Your task to perform on an android device: Open eBay Image 0: 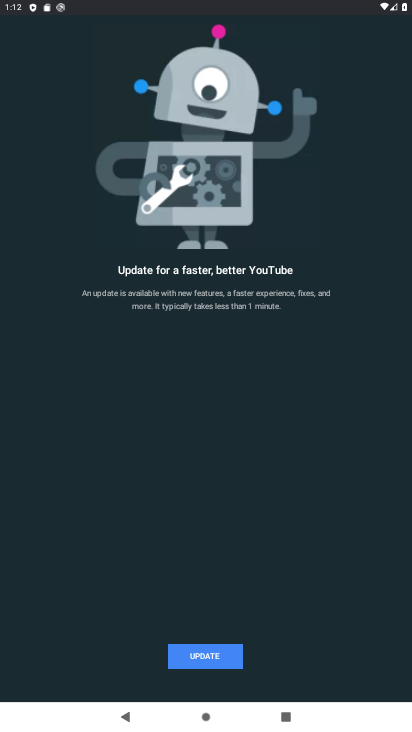
Step 0: press home button
Your task to perform on an android device: Open eBay Image 1: 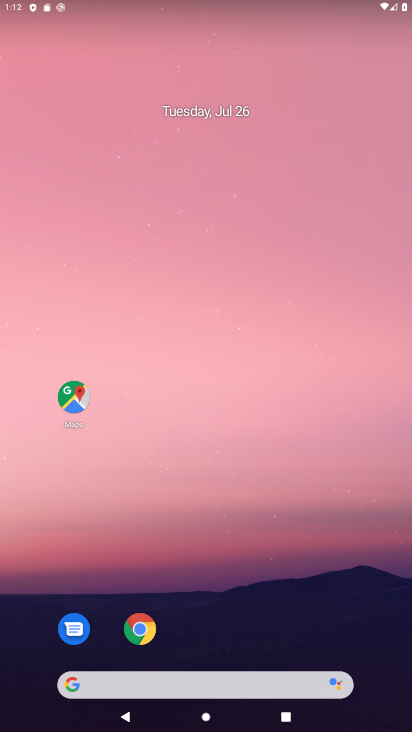
Step 1: click (140, 628)
Your task to perform on an android device: Open eBay Image 2: 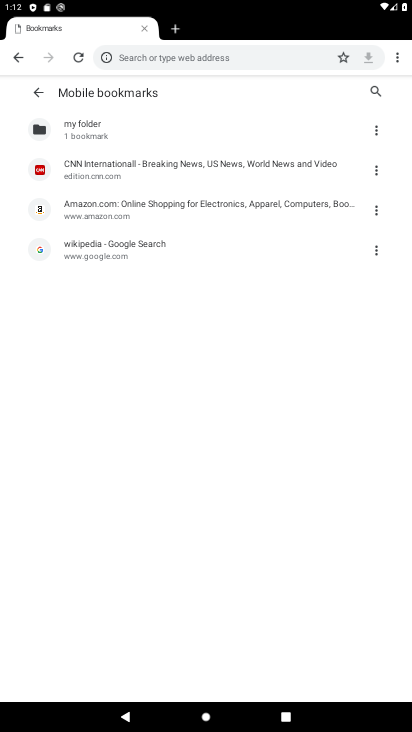
Step 2: click (175, 25)
Your task to perform on an android device: Open eBay Image 3: 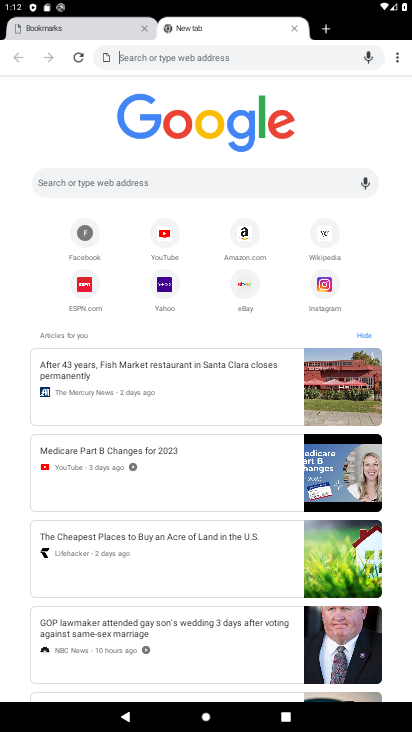
Step 3: click (239, 282)
Your task to perform on an android device: Open eBay Image 4: 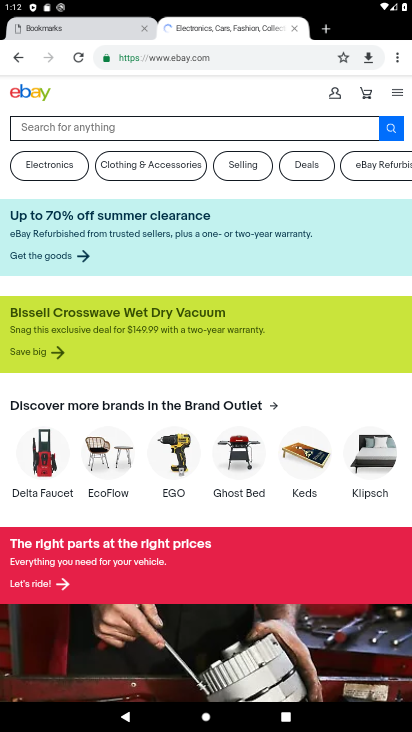
Step 4: task complete